Your task to perform on an android device: Open settings on Google Maps Image 0: 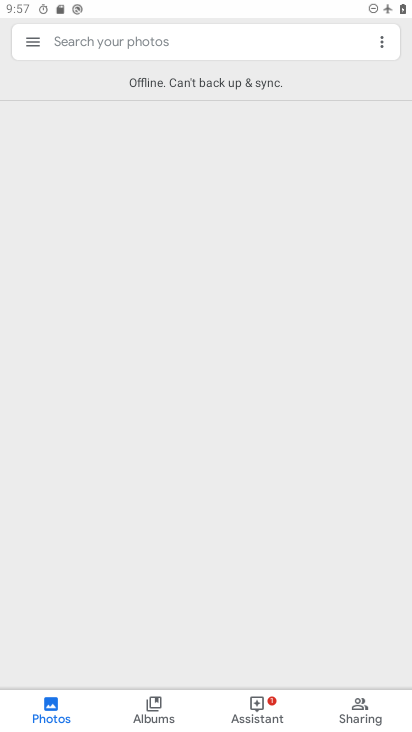
Step 0: press home button
Your task to perform on an android device: Open settings on Google Maps Image 1: 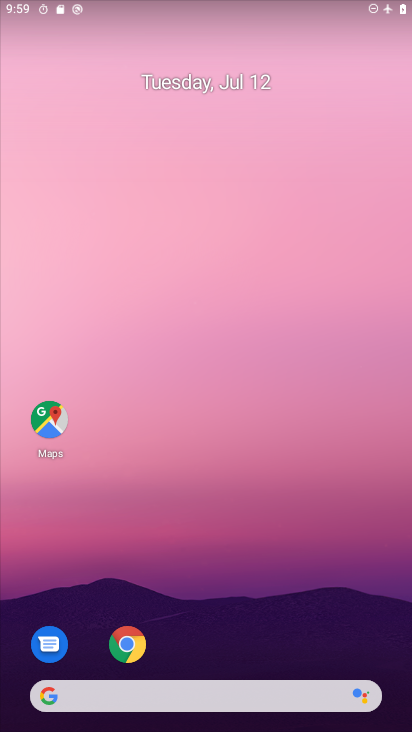
Step 1: click (31, 434)
Your task to perform on an android device: Open settings on Google Maps Image 2: 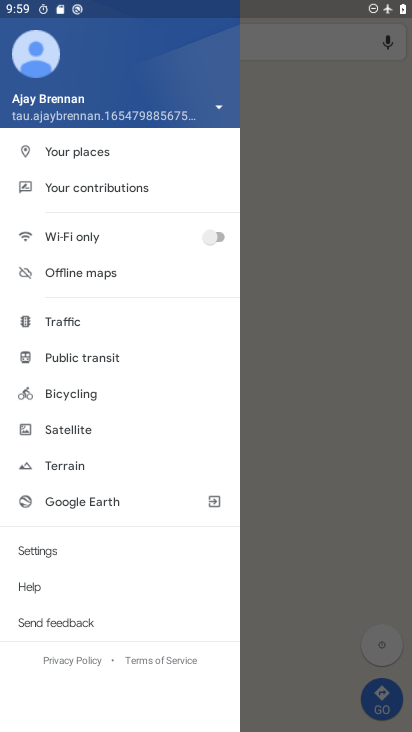
Step 2: click (45, 549)
Your task to perform on an android device: Open settings on Google Maps Image 3: 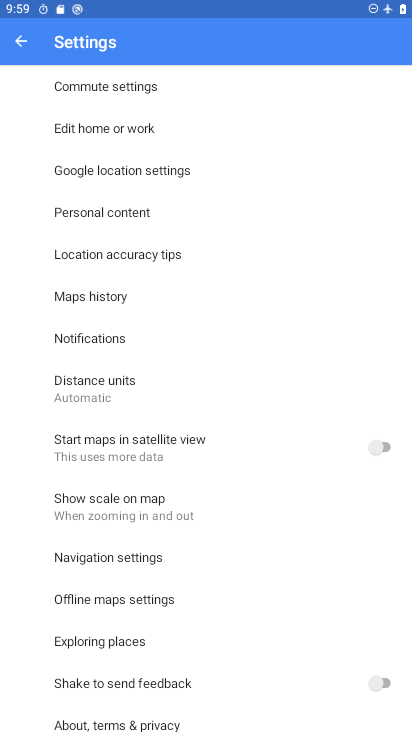
Step 3: task complete